Your task to perform on an android device: Clear the cart on costco.com. Add bose soundsport free to the cart on costco.com, then select checkout. Image 0: 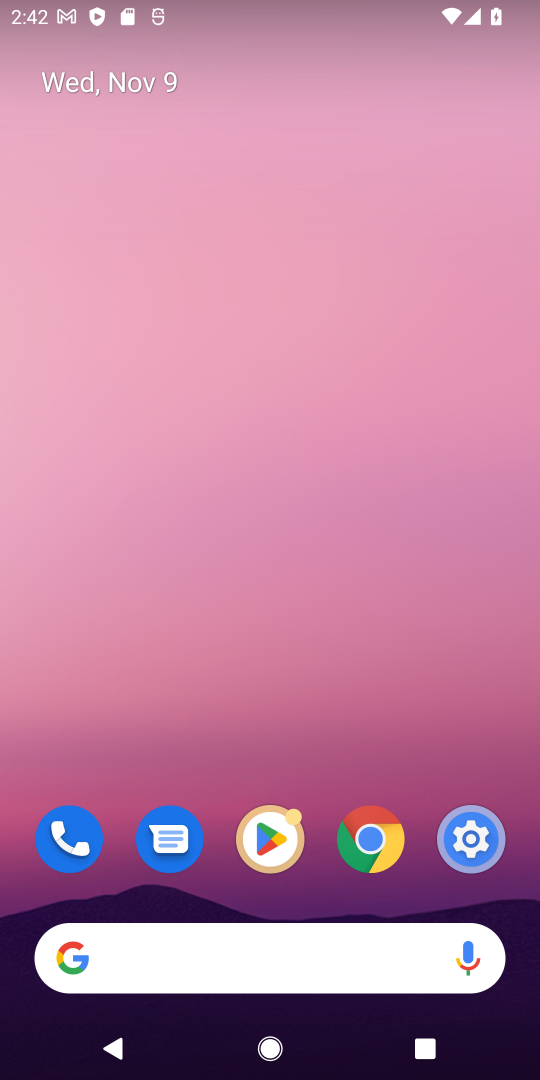
Step 0: click (305, 977)
Your task to perform on an android device: Clear the cart on costco.com. Add bose soundsport free to the cart on costco.com, then select checkout. Image 1: 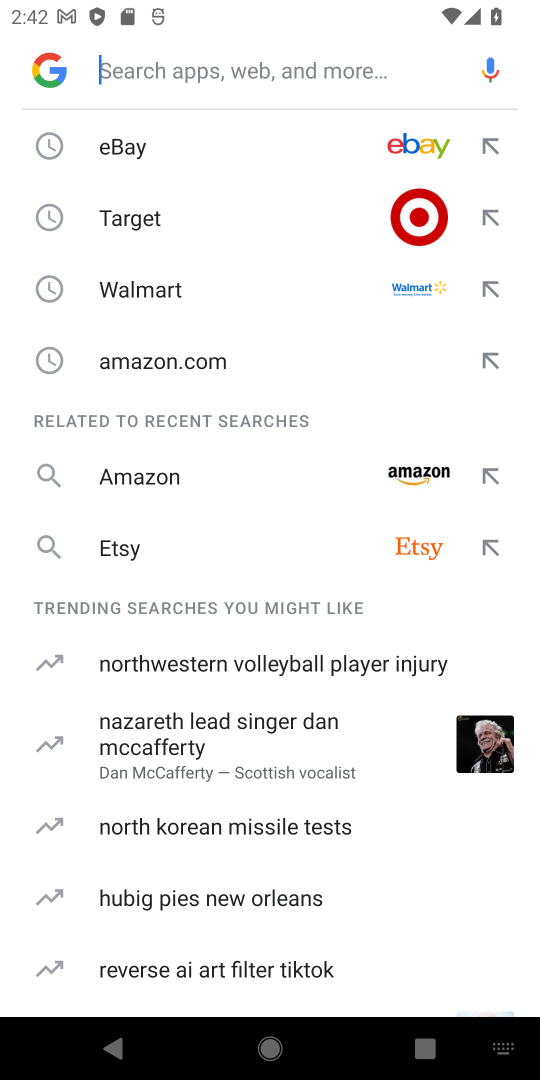
Step 1: type "costco"
Your task to perform on an android device: Clear the cart on costco.com. Add bose soundsport free to the cart on costco.com, then select checkout. Image 2: 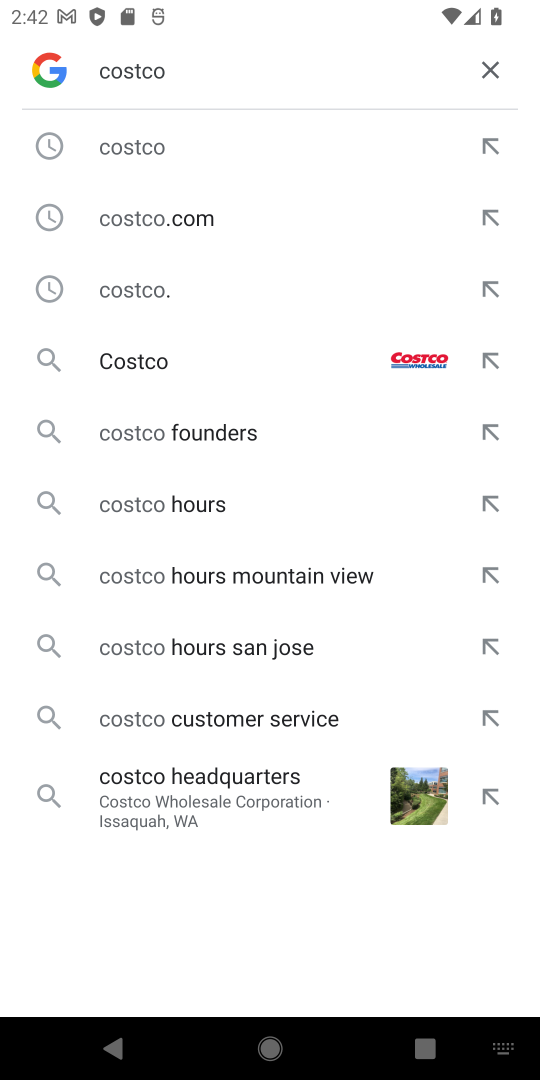
Step 2: click (227, 351)
Your task to perform on an android device: Clear the cart on costco.com. Add bose soundsport free to the cart on costco.com, then select checkout. Image 3: 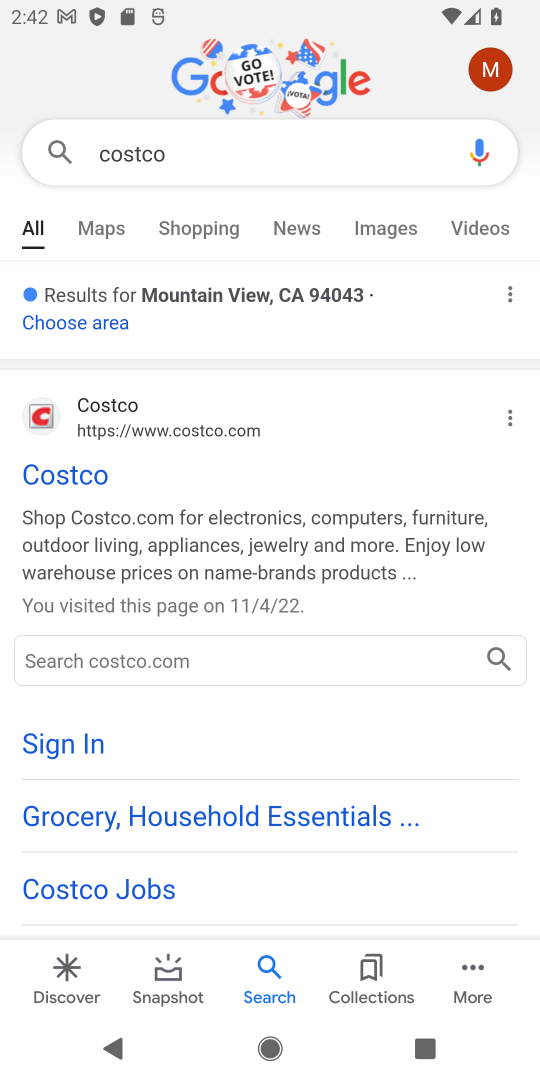
Step 3: click (94, 464)
Your task to perform on an android device: Clear the cart on costco.com. Add bose soundsport free to the cart on costco.com, then select checkout. Image 4: 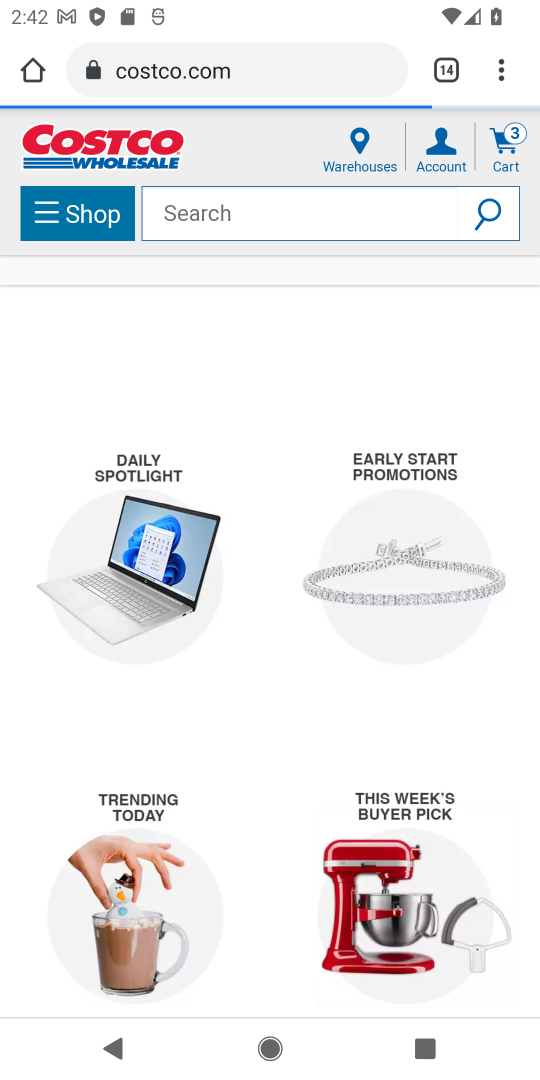
Step 4: click (311, 216)
Your task to perform on an android device: Clear the cart on costco.com. Add bose soundsport free to the cart on costco.com, then select checkout. Image 5: 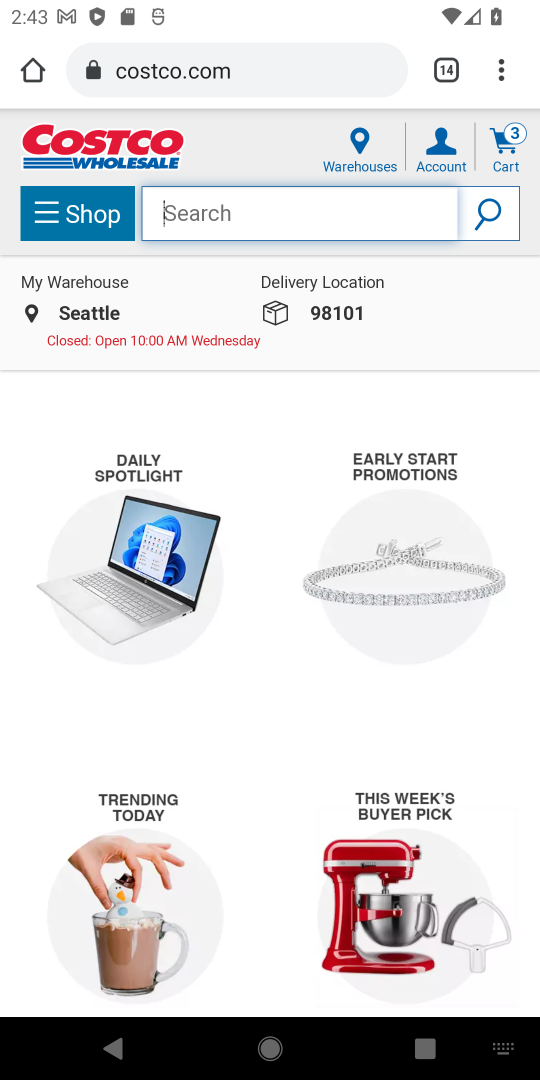
Step 5: type "bose soundsport"
Your task to perform on an android device: Clear the cart on costco.com. Add bose soundsport free to the cart on costco.com, then select checkout. Image 6: 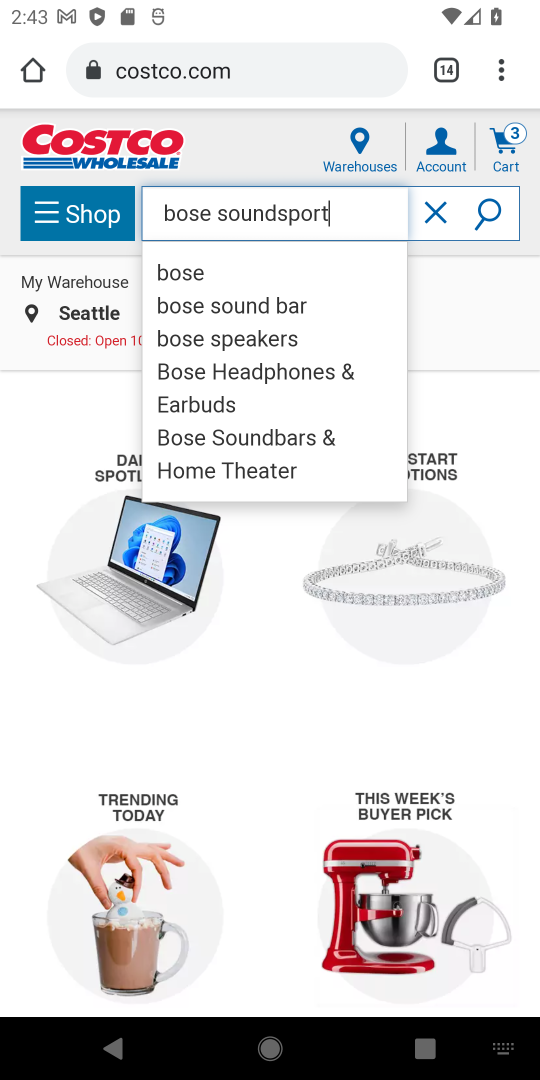
Step 6: click (493, 226)
Your task to perform on an android device: Clear the cart on costco.com. Add bose soundsport free to the cart on costco.com, then select checkout. Image 7: 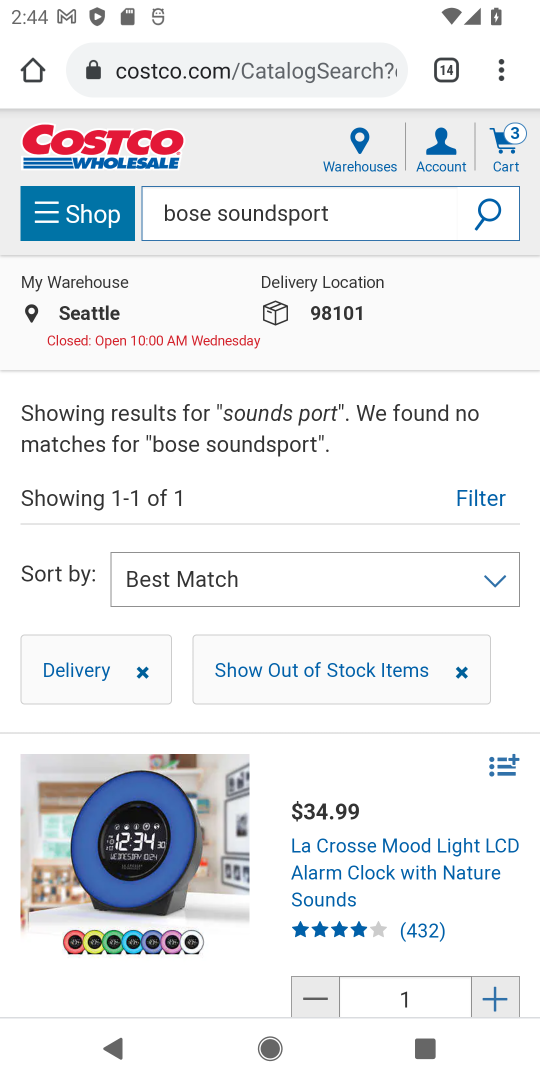
Step 7: click (486, 234)
Your task to perform on an android device: Clear the cart on costco.com. Add bose soundsport free to the cart on costco.com, then select checkout. Image 8: 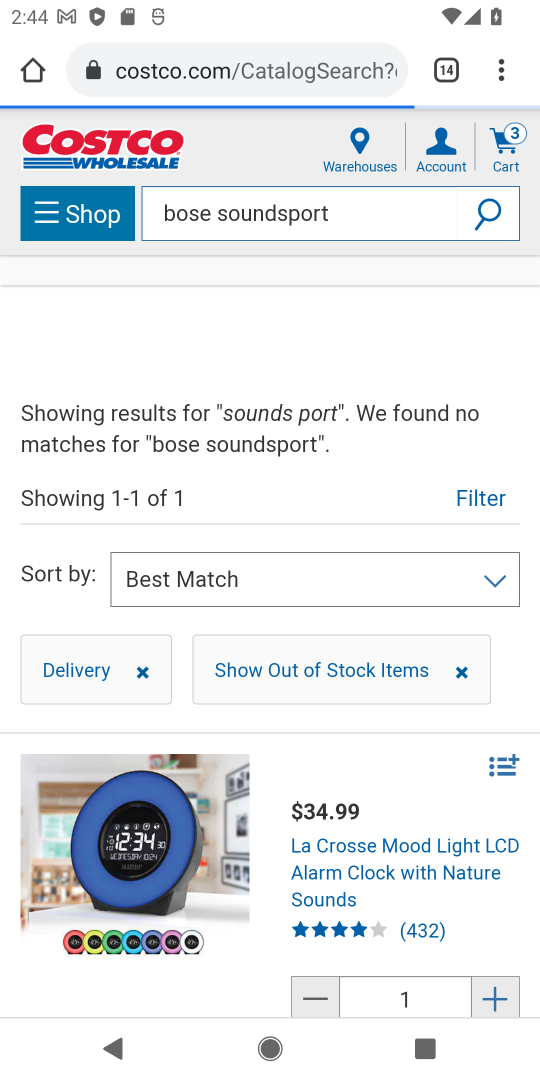
Step 8: task complete